Your task to perform on an android device: Clear the shopping cart on walmart.com. Add acer predator to the cart on walmart.com Image 0: 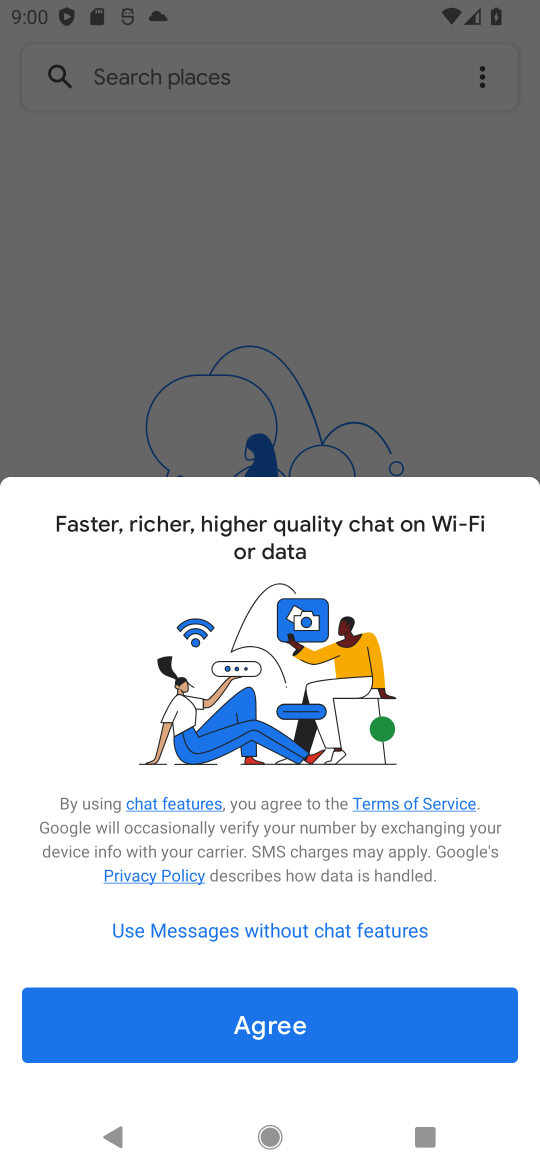
Step 0: press home button
Your task to perform on an android device: Clear the shopping cart on walmart.com. Add acer predator to the cart on walmart.com Image 1: 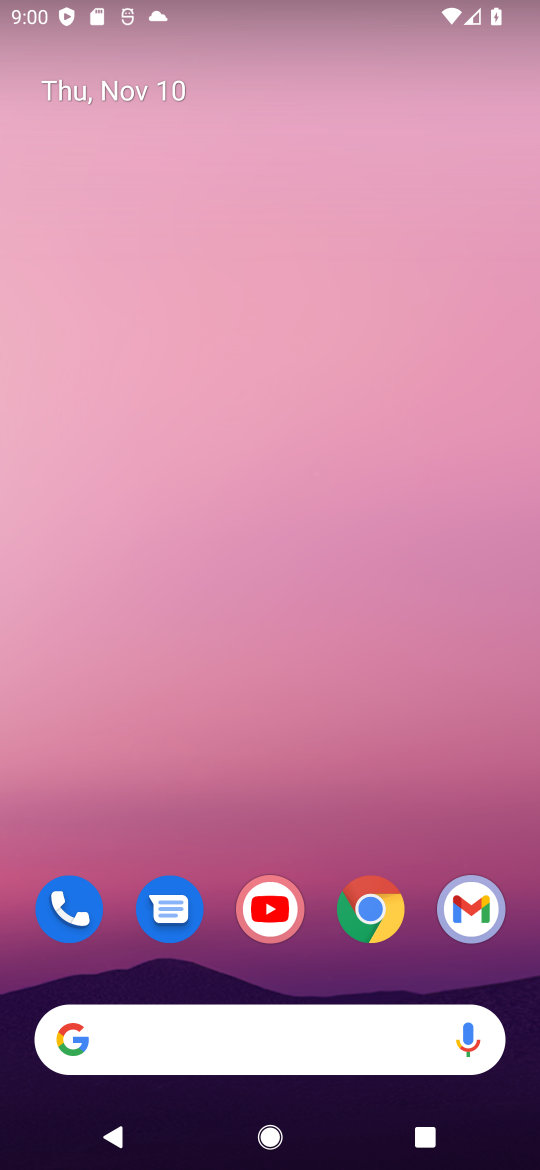
Step 1: drag from (266, 648) to (266, 347)
Your task to perform on an android device: Clear the shopping cart on walmart.com. Add acer predator to the cart on walmart.com Image 2: 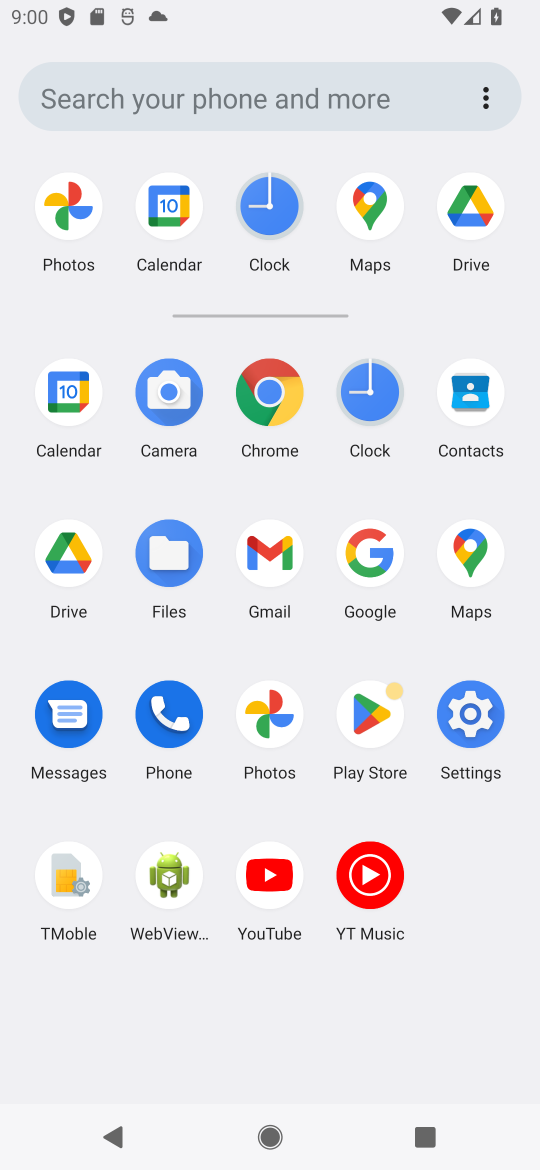
Step 2: click (369, 556)
Your task to perform on an android device: Clear the shopping cart on walmart.com. Add acer predator to the cart on walmart.com Image 3: 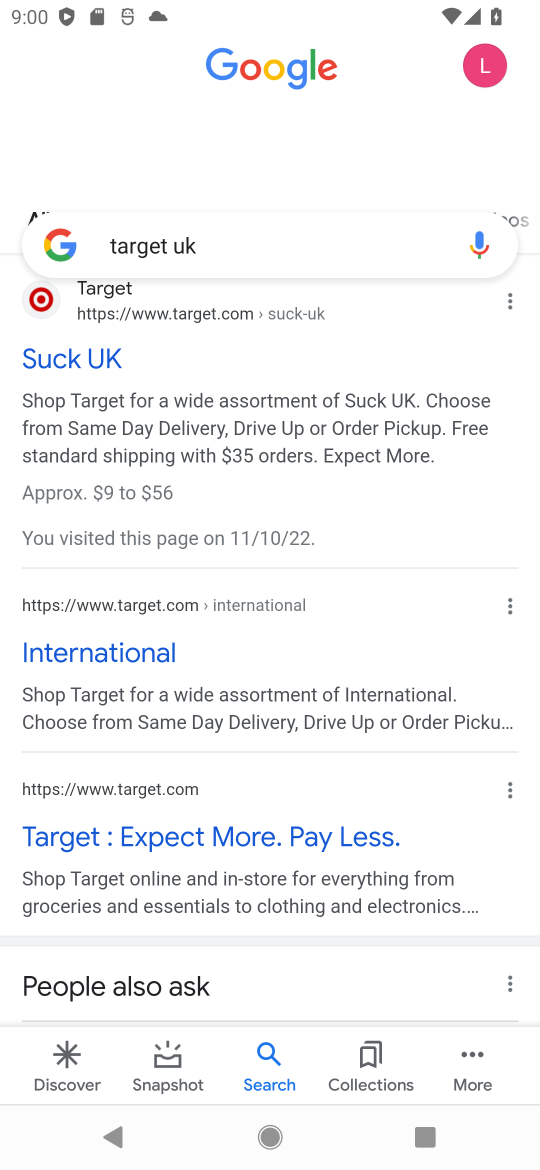
Step 3: click (149, 227)
Your task to perform on an android device: Clear the shopping cart on walmart.com. Add acer predator to the cart on walmart.com Image 4: 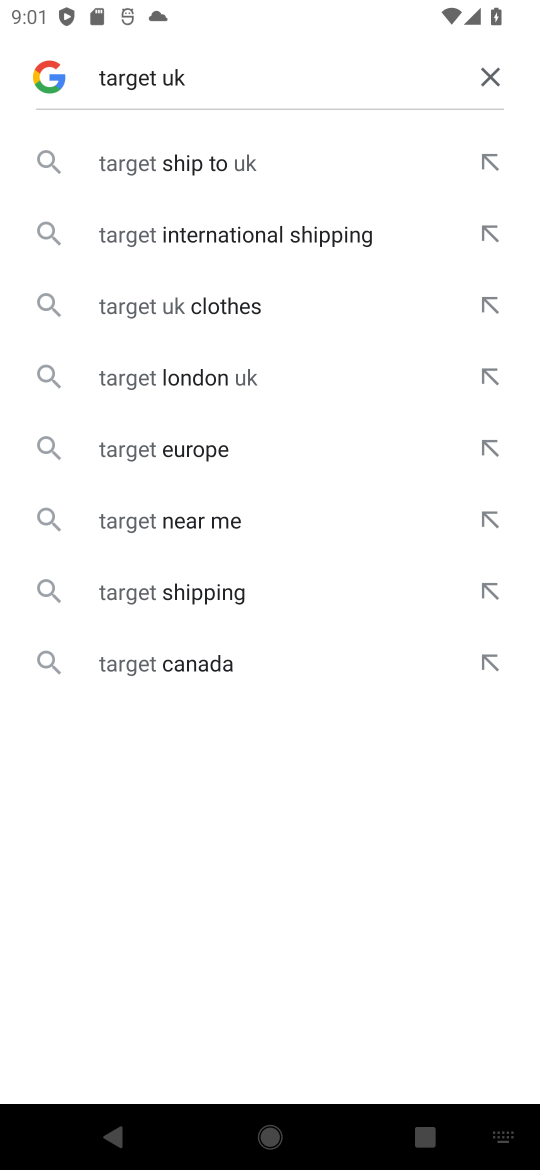
Step 4: click (495, 67)
Your task to perform on an android device: Clear the shopping cart on walmart.com. Add acer predator to the cart on walmart.com Image 5: 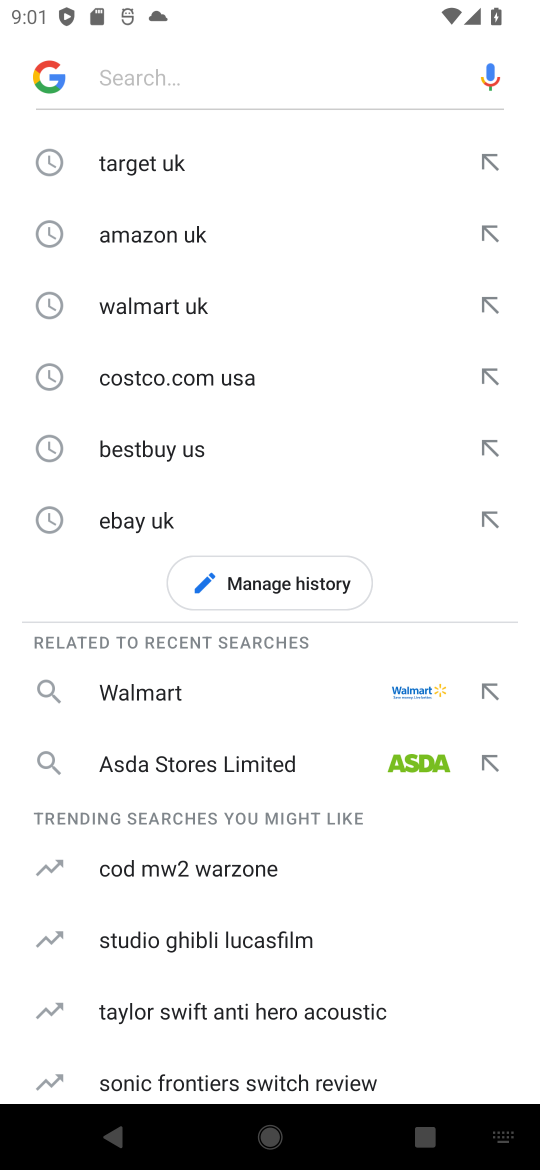
Step 5: click (177, 71)
Your task to perform on an android device: Clear the shopping cart on walmart.com. Add acer predator to the cart on walmart.com Image 6: 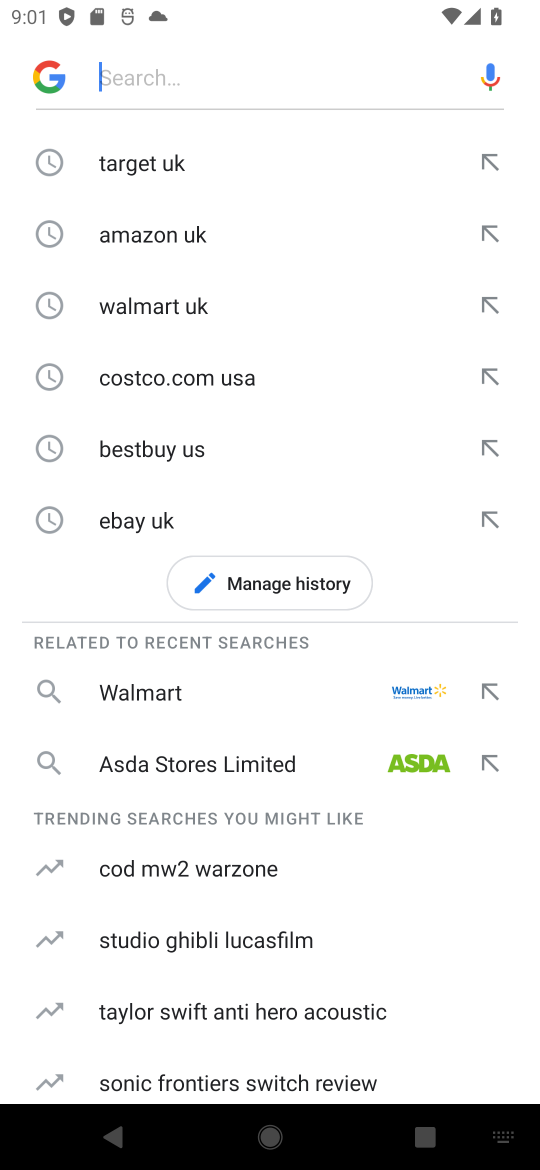
Step 6: type "walmart "
Your task to perform on an android device: Clear the shopping cart on walmart.com. Add acer predator to the cart on walmart.com Image 7: 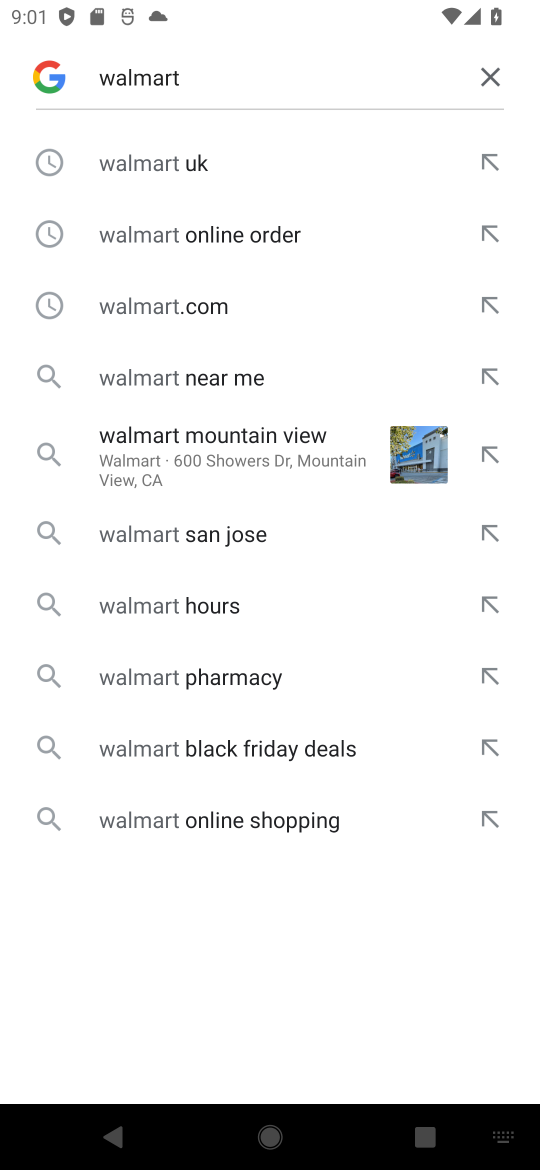
Step 7: click (189, 165)
Your task to perform on an android device: Clear the shopping cart on walmart.com. Add acer predator to the cart on walmart.com Image 8: 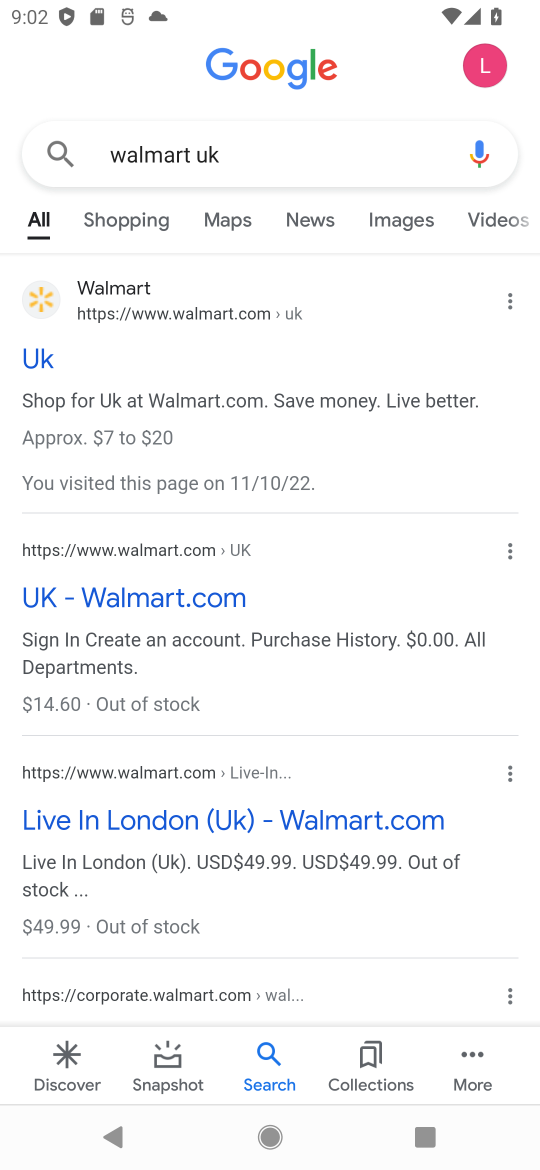
Step 8: click (33, 304)
Your task to perform on an android device: Clear the shopping cart on walmart.com. Add acer predator to the cart on walmart.com Image 9: 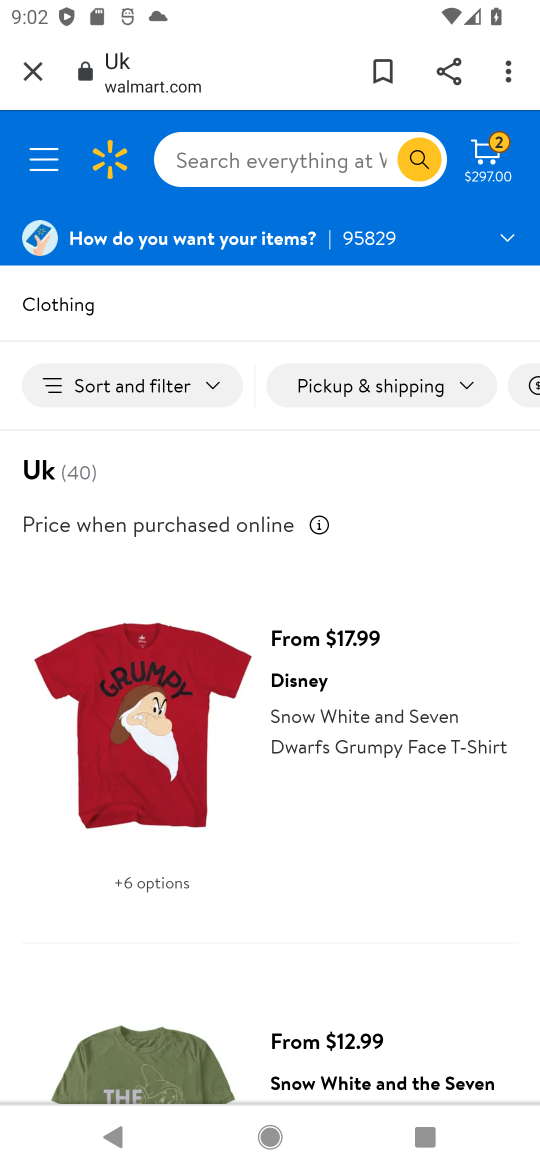
Step 9: click (267, 152)
Your task to perform on an android device: Clear the shopping cart on walmart.com. Add acer predator to the cart on walmart.com Image 10: 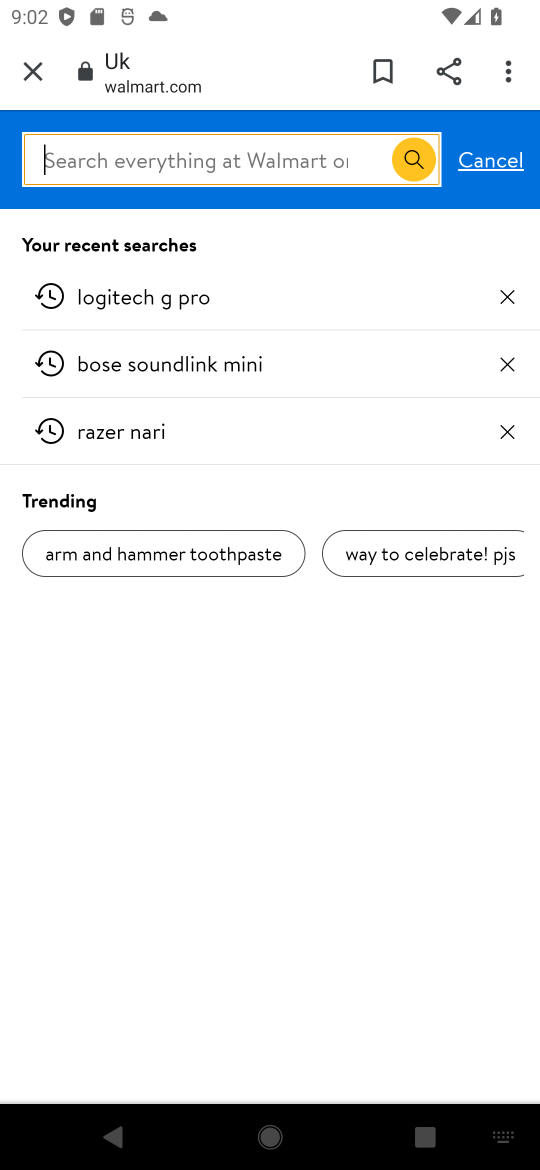
Step 10: type "acer predator "
Your task to perform on an android device: Clear the shopping cart on walmart.com. Add acer predator to the cart on walmart.com Image 11: 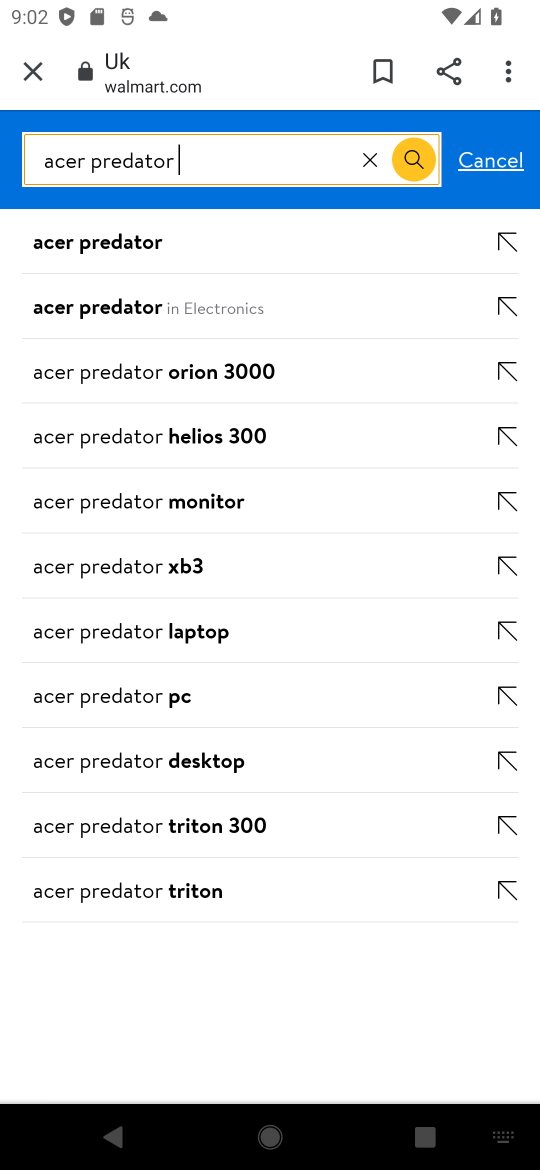
Step 11: click (160, 250)
Your task to perform on an android device: Clear the shopping cart on walmart.com. Add acer predator to the cart on walmart.com Image 12: 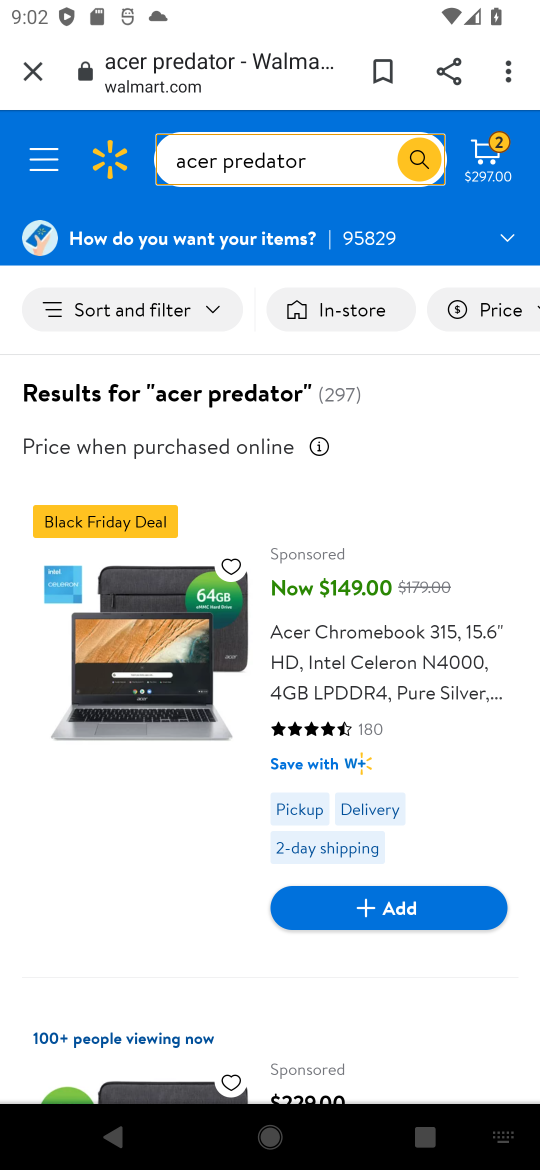
Step 12: drag from (153, 955) to (289, 210)
Your task to perform on an android device: Clear the shopping cart on walmart.com. Add acer predator to the cart on walmart.com Image 13: 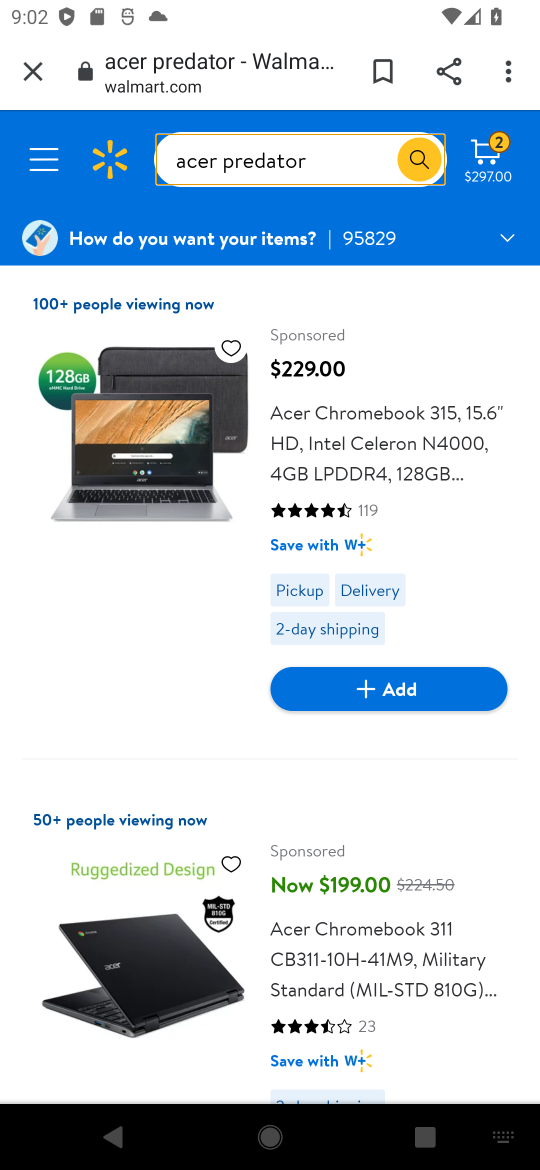
Step 13: drag from (264, 938) to (329, 462)
Your task to perform on an android device: Clear the shopping cart on walmart.com. Add acer predator to the cart on walmart.com Image 14: 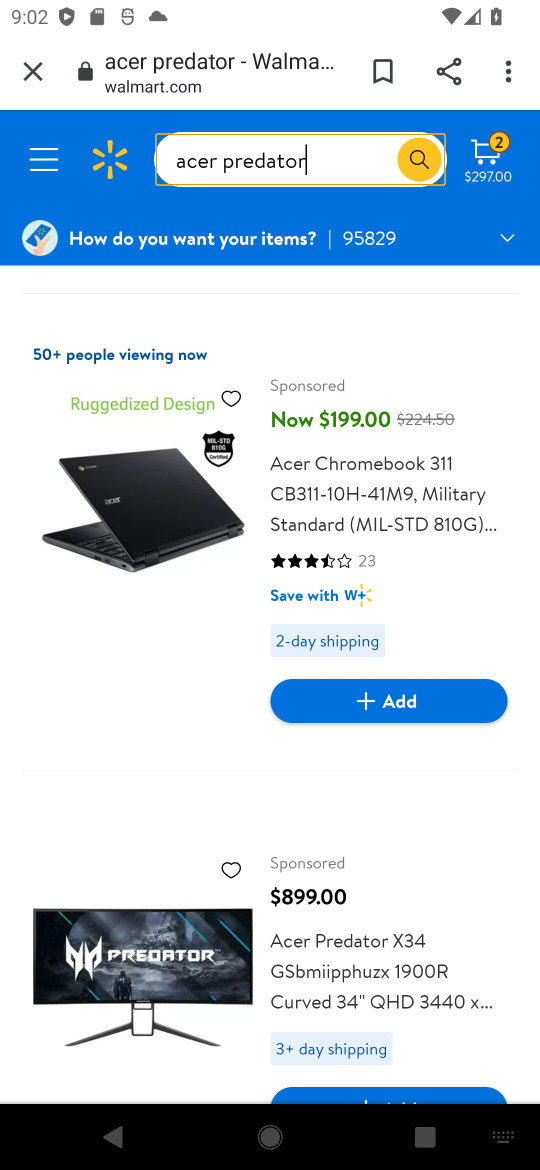
Step 14: drag from (432, 1007) to (438, 634)
Your task to perform on an android device: Clear the shopping cart on walmart.com. Add acer predator to the cart on walmart.com Image 15: 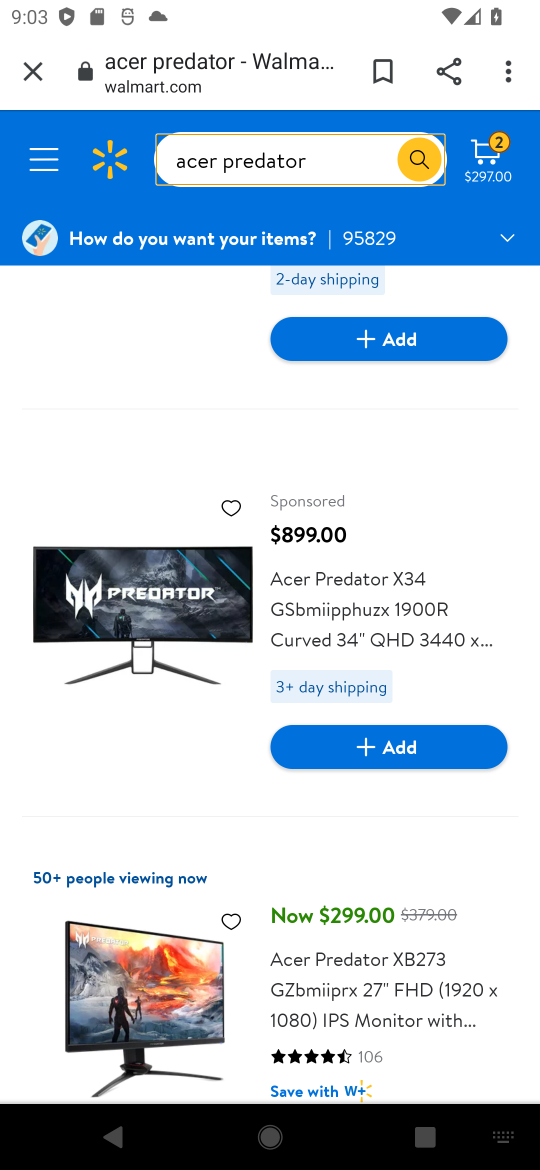
Step 15: click (376, 741)
Your task to perform on an android device: Clear the shopping cart on walmart.com. Add acer predator to the cart on walmart.com Image 16: 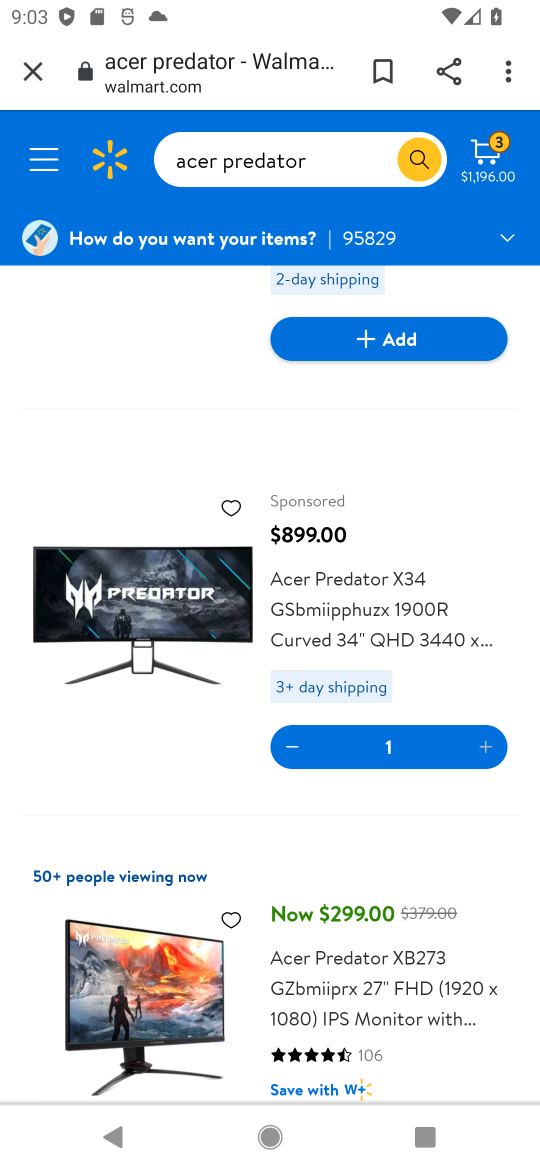
Step 16: task complete